Your task to perform on an android device: Go to Reddit.com Image 0: 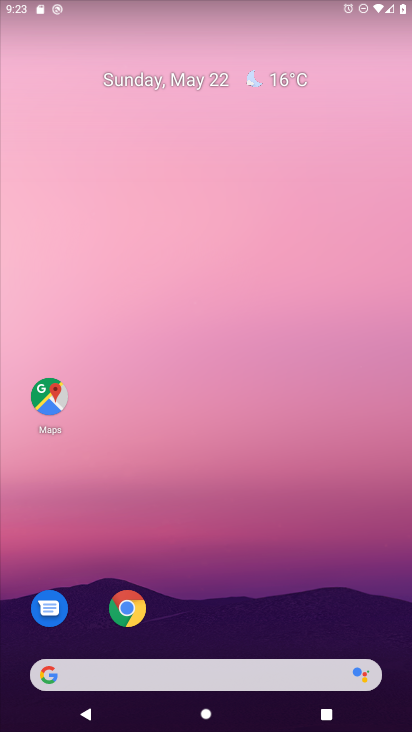
Step 0: click (131, 608)
Your task to perform on an android device: Go to Reddit.com Image 1: 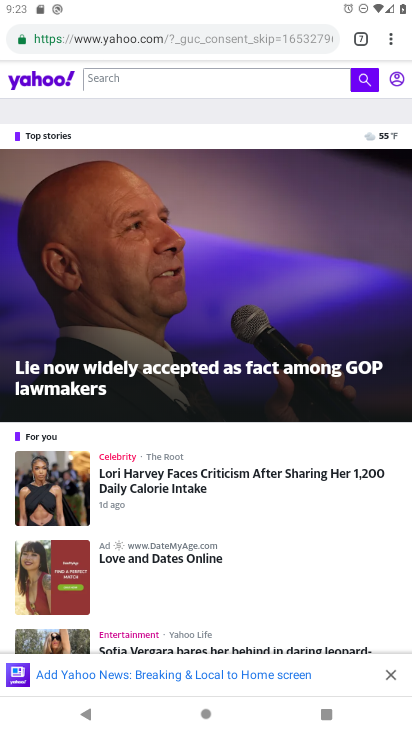
Step 1: click (392, 41)
Your task to perform on an android device: Go to Reddit.com Image 2: 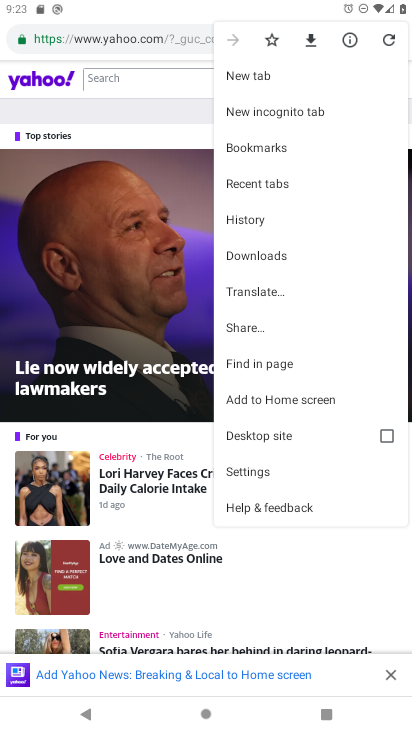
Step 2: click (254, 79)
Your task to perform on an android device: Go to Reddit.com Image 3: 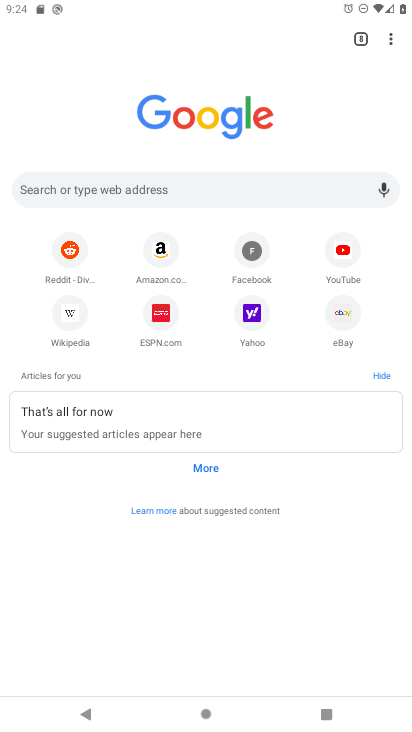
Step 3: click (70, 252)
Your task to perform on an android device: Go to Reddit.com Image 4: 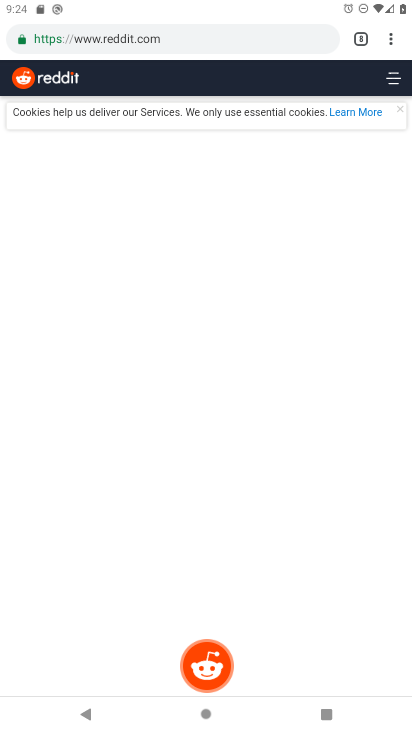
Step 4: task complete